Your task to perform on an android device: turn notification dots on Image 0: 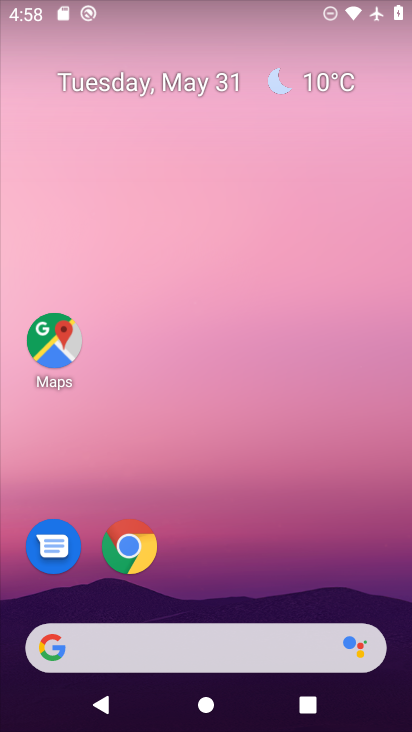
Step 0: drag from (296, 423) to (170, 3)
Your task to perform on an android device: turn notification dots on Image 1: 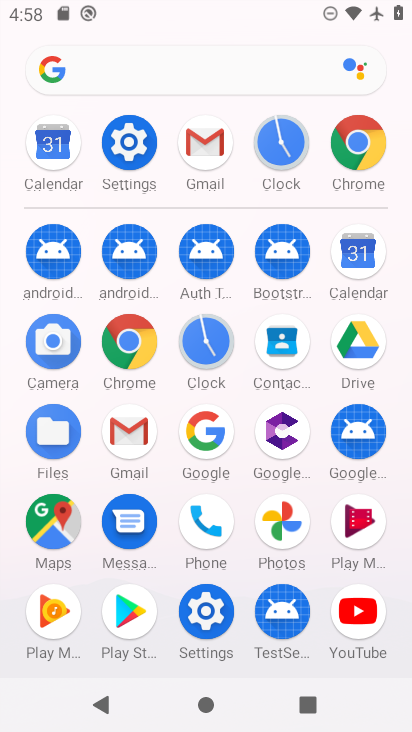
Step 1: click (143, 128)
Your task to perform on an android device: turn notification dots on Image 2: 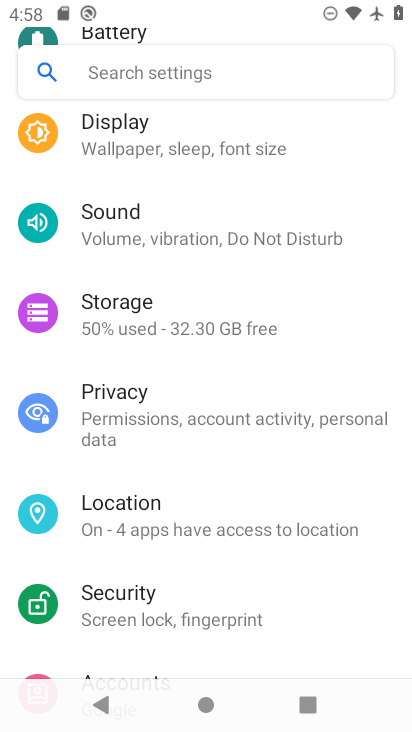
Step 2: drag from (221, 162) to (233, 729)
Your task to perform on an android device: turn notification dots on Image 3: 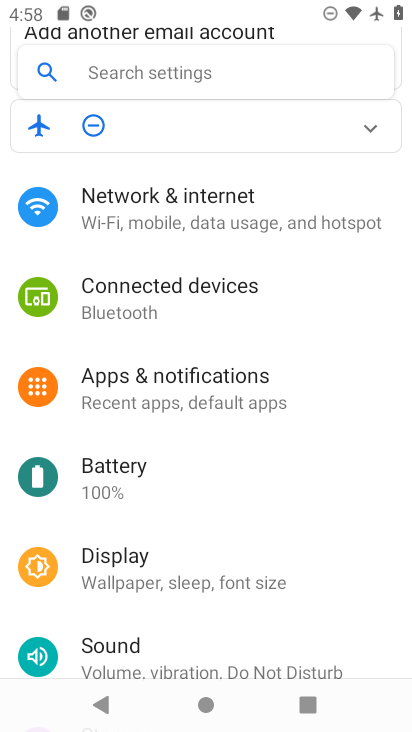
Step 3: click (185, 400)
Your task to perform on an android device: turn notification dots on Image 4: 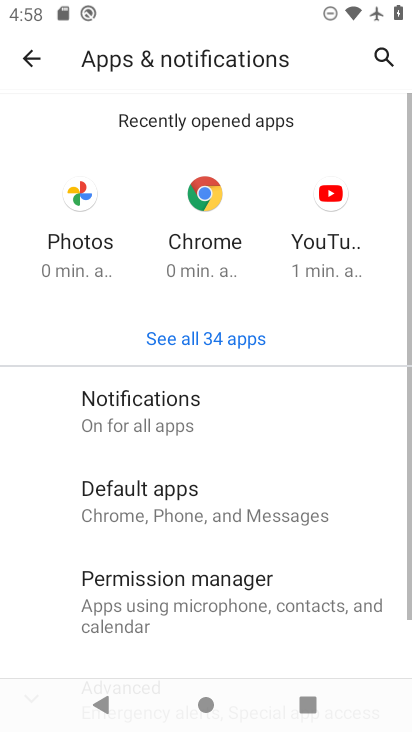
Step 4: click (207, 402)
Your task to perform on an android device: turn notification dots on Image 5: 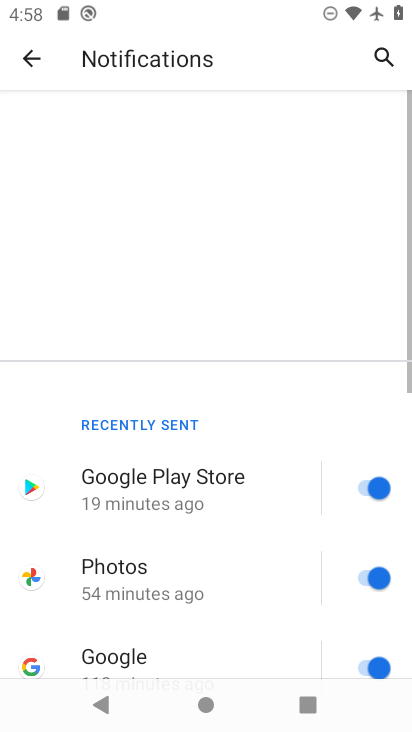
Step 5: drag from (245, 593) to (228, 138)
Your task to perform on an android device: turn notification dots on Image 6: 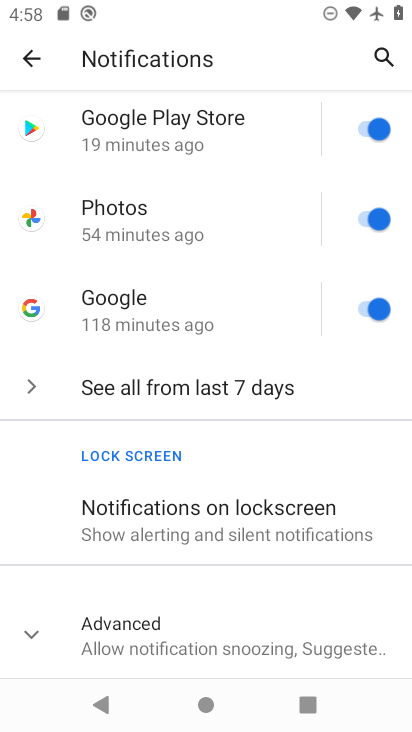
Step 6: click (228, 614)
Your task to perform on an android device: turn notification dots on Image 7: 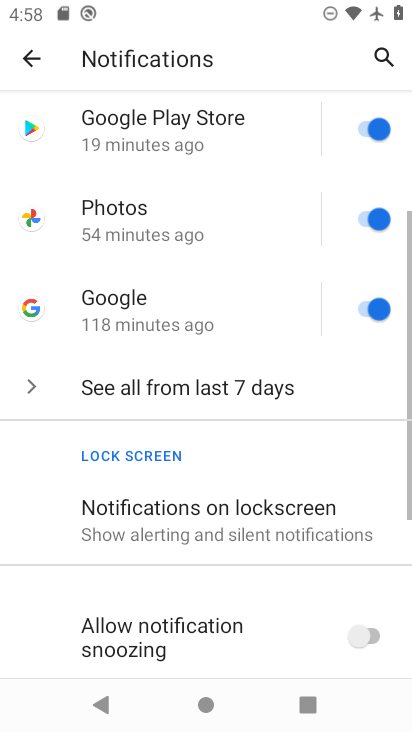
Step 7: drag from (249, 623) to (213, 118)
Your task to perform on an android device: turn notification dots on Image 8: 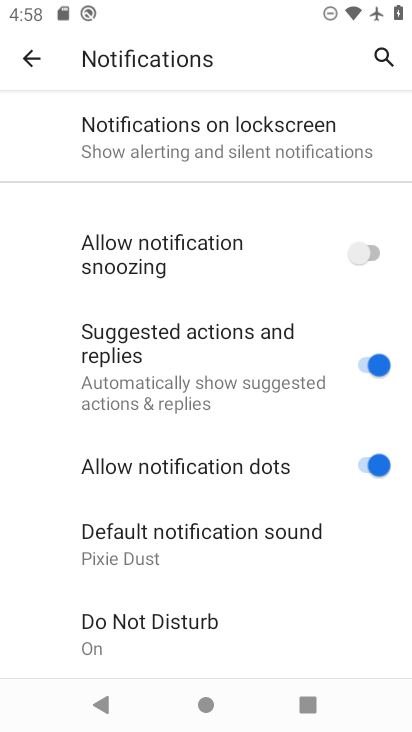
Step 8: click (383, 464)
Your task to perform on an android device: turn notification dots on Image 9: 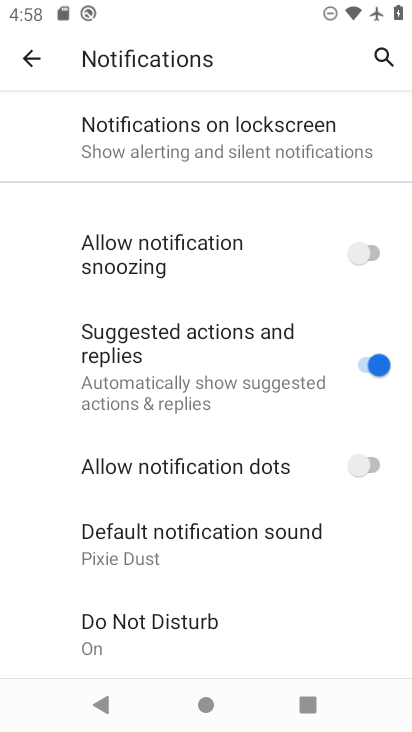
Step 9: click (364, 464)
Your task to perform on an android device: turn notification dots on Image 10: 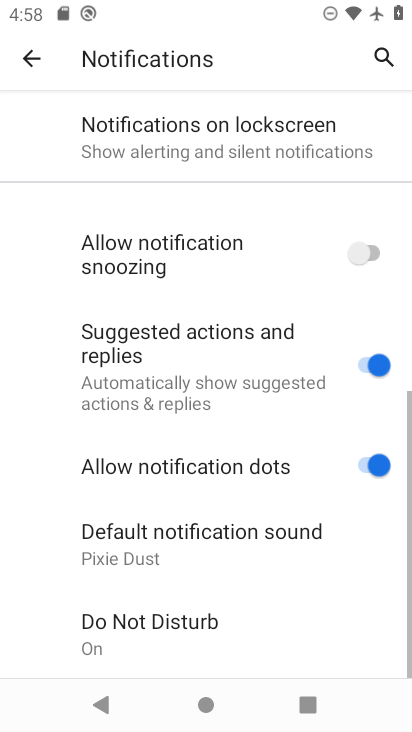
Step 10: task complete